Your task to perform on an android device: turn off location Image 0: 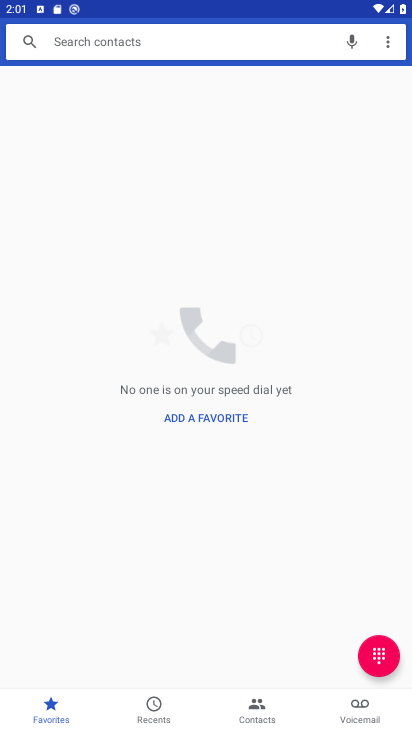
Step 0: press back button
Your task to perform on an android device: turn off location Image 1: 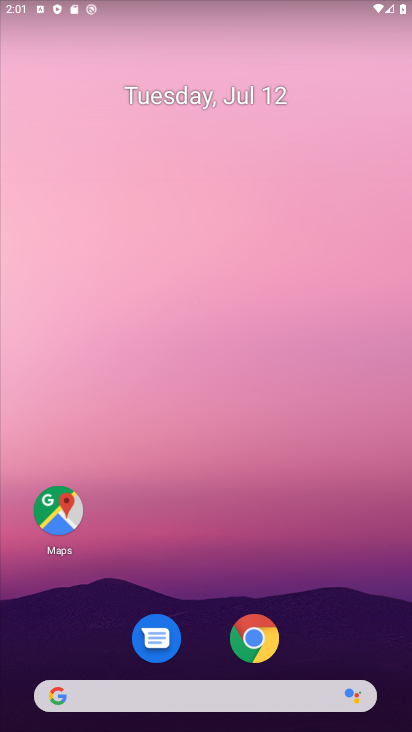
Step 1: drag from (117, 432) to (163, 132)
Your task to perform on an android device: turn off location Image 2: 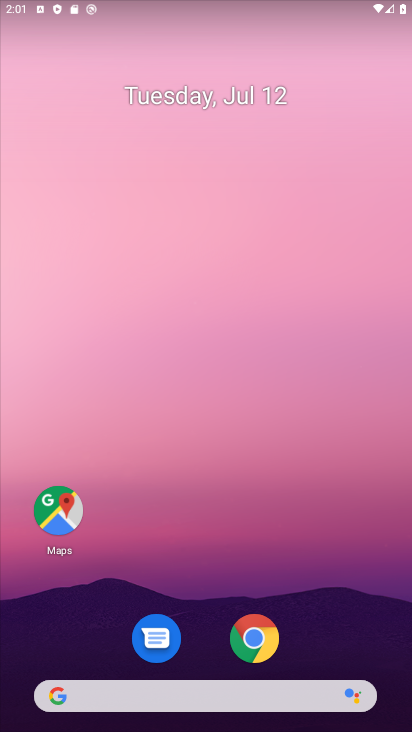
Step 2: drag from (73, 646) to (166, 26)
Your task to perform on an android device: turn off location Image 3: 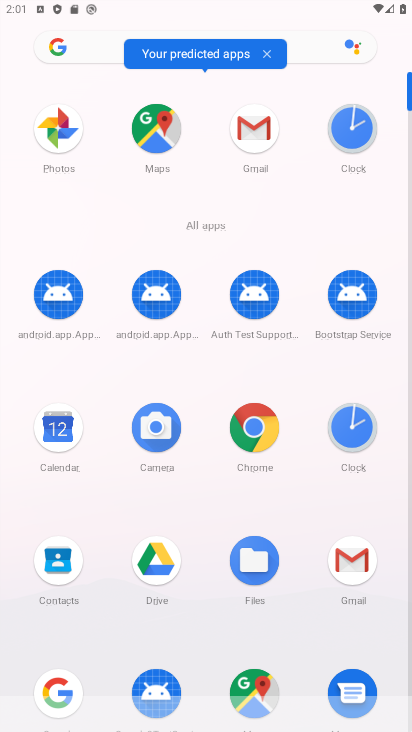
Step 3: drag from (201, 554) to (251, 25)
Your task to perform on an android device: turn off location Image 4: 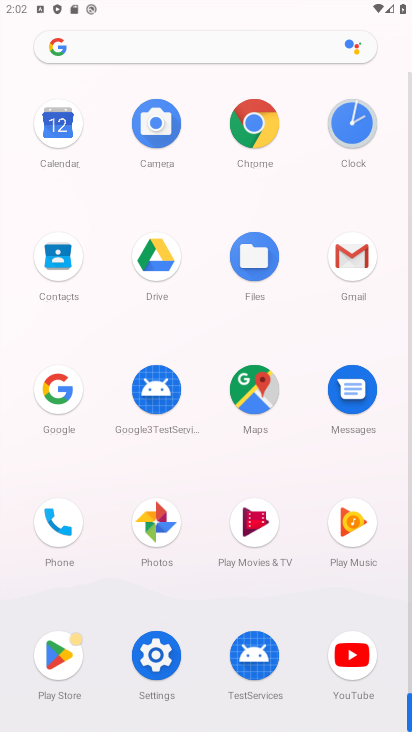
Step 4: click (148, 664)
Your task to perform on an android device: turn off location Image 5: 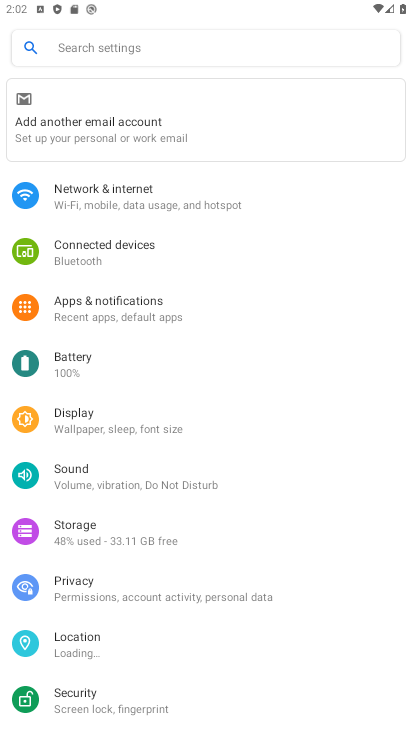
Step 5: click (86, 640)
Your task to perform on an android device: turn off location Image 6: 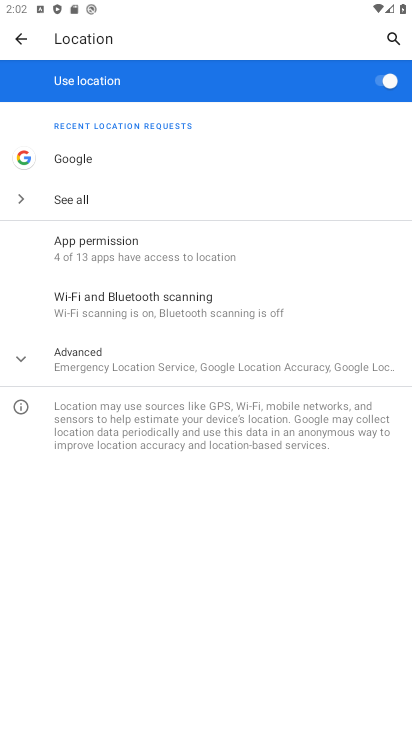
Step 6: click (388, 82)
Your task to perform on an android device: turn off location Image 7: 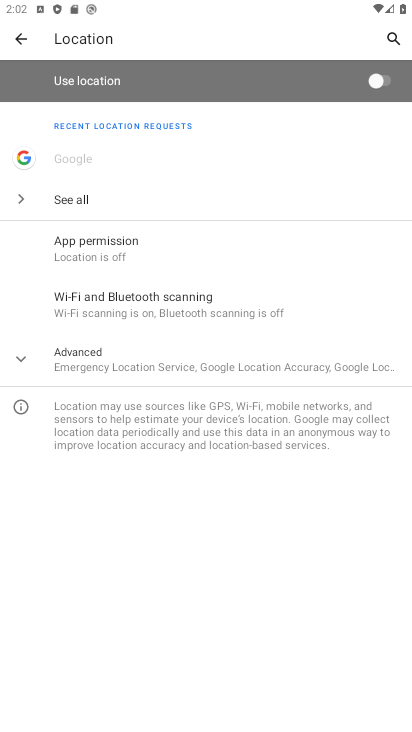
Step 7: task complete